Your task to perform on an android device: Do I have any events tomorrow? Image 0: 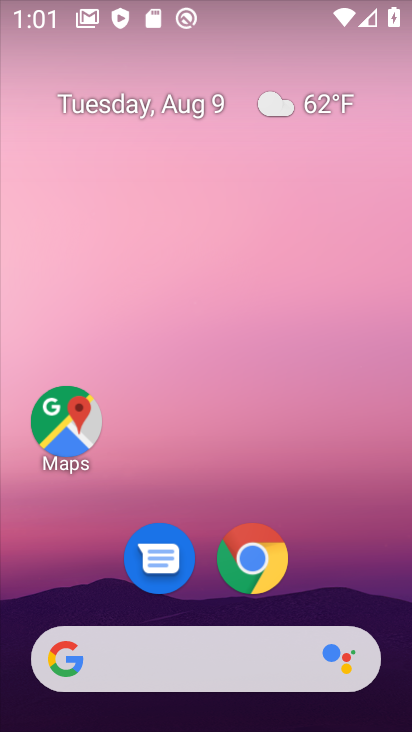
Step 0: drag from (364, 556) to (315, 276)
Your task to perform on an android device: Do I have any events tomorrow? Image 1: 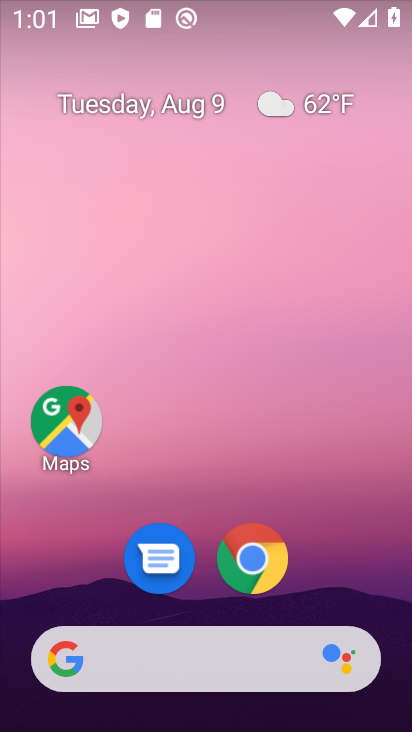
Step 1: drag from (364, 571) to (312, 115)
Your task to perform on an android device: Do I have any events tomorrow? Image 2: 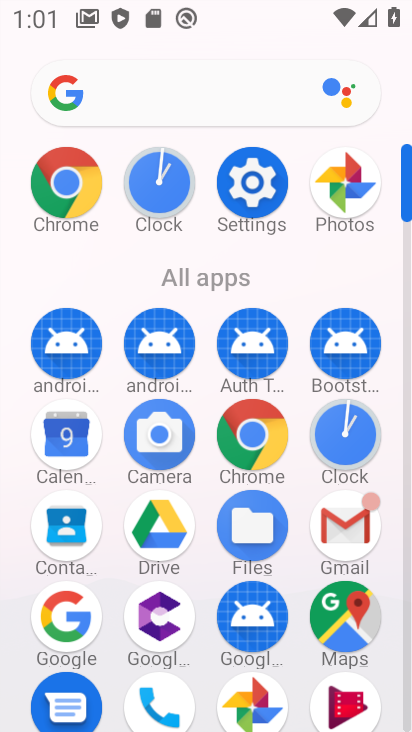
Step 2: click (54, 432)
Your task to perform on an android device: Do I have any events tomorrow? Image 3: 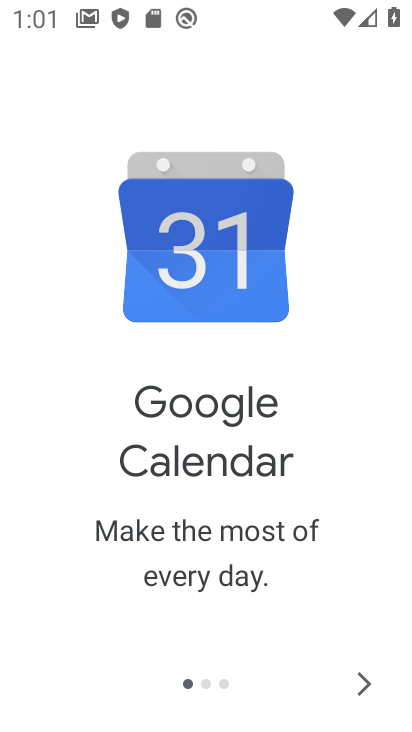
Step 3: click (361, 682)
Your task to perform on an android device: Do I have any events tomorrow? Image 4: 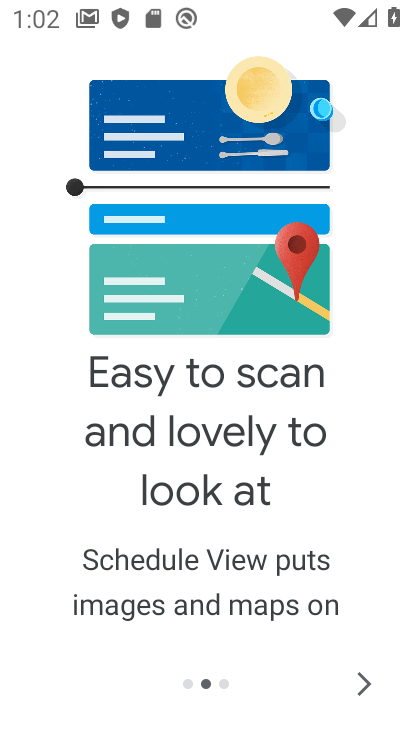
Step 4: click (371, 686)
Your task to perform on an android device: Do I have any events tomorrow? Image 5: 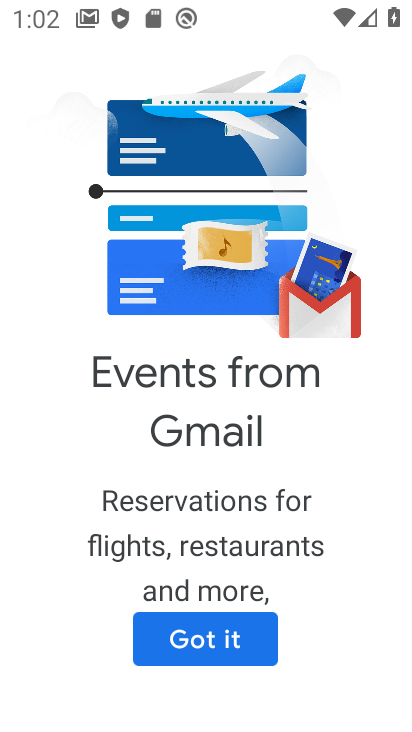
Step 5: click (181, 642)
Your task to perform on an android device: Do I have any events tomorrow? Image 6: 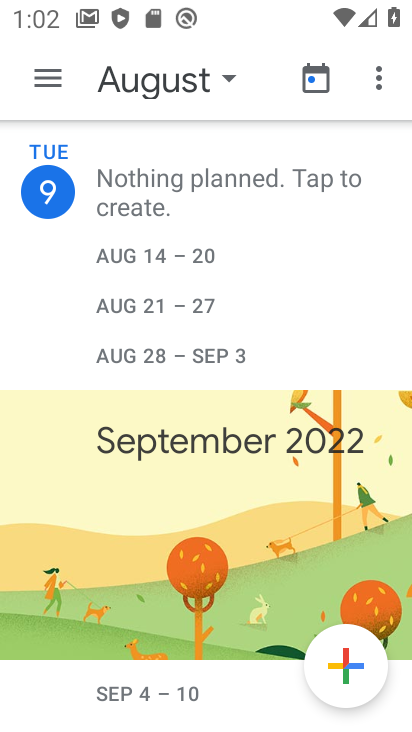
Step 6: click (63, 82)
Your task to perform on an android device: Do I have any events tomorrow? Image 7: 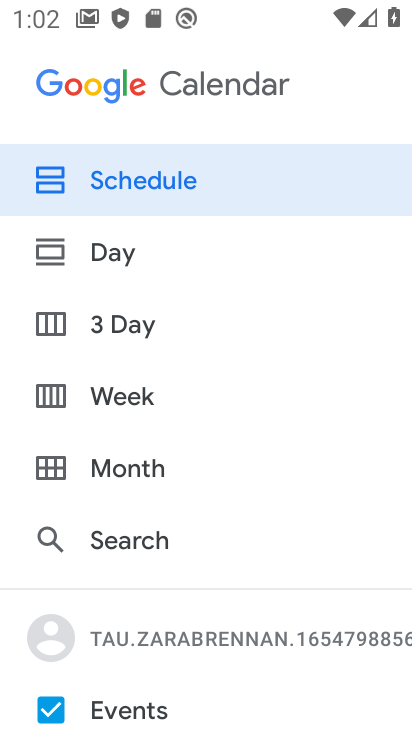
Step 7: click (105, 267)
Your task to perform on an android device: Do I have any events tomorrow? Image 8: 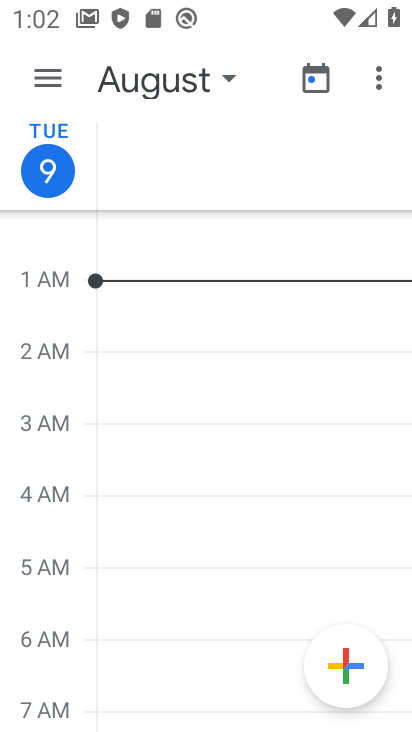
Step 8: click (222, 92)
Your task to perform on an android device: Do I have any events tomorrow? Image 9: 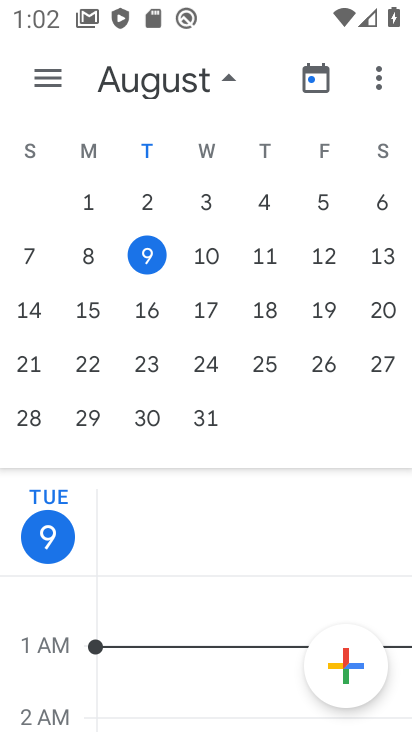
Step 9: click (202, 247)
Your task to perform on an android device: Do I have any events tomorrow? Image 10: 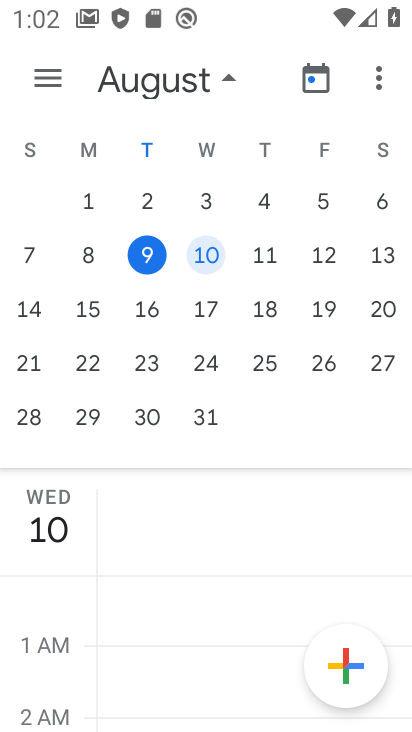
Step 10: task complete